Your task to perform on an android device: delete browsing data in the chrome app Image 0: 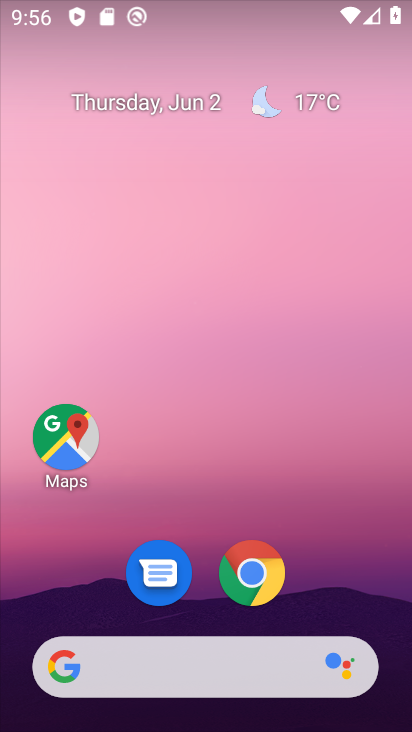
Step 0: drag from (392, 424) to (324, 93)
Your task to perform on an android device: delete browsing data in the chrome app Image 1: 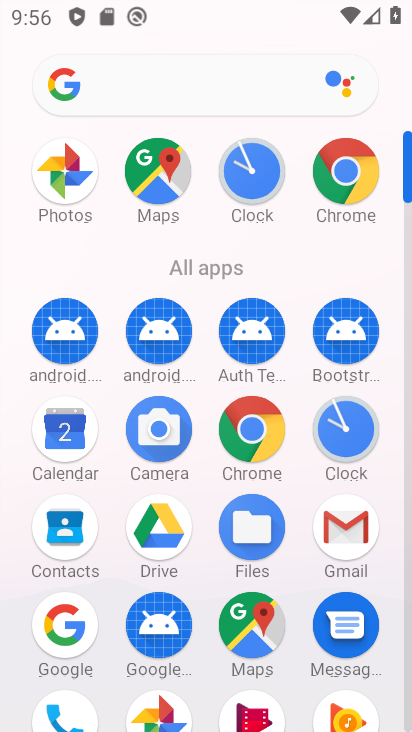
Step 1: click (361, 206)
Your task to perform on an android device: delete browsing data in the chrome app Image 2: 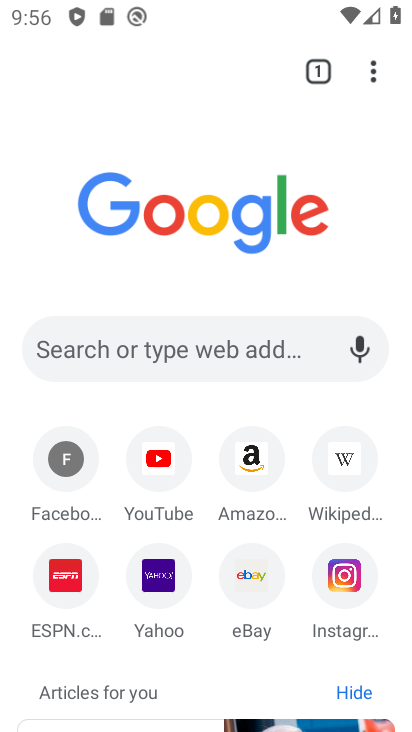
Step 2: task complete